Your task to perform on an android device: Open wifi settings Image 0: 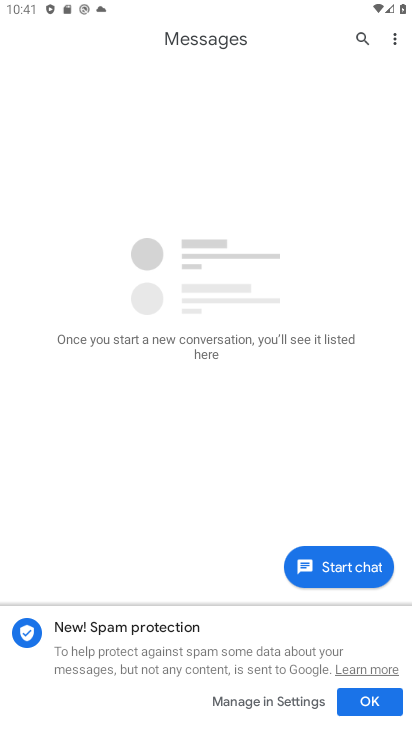
Step 0: press home button
Your task to perform on an android device: Open wifi settings Image 1: 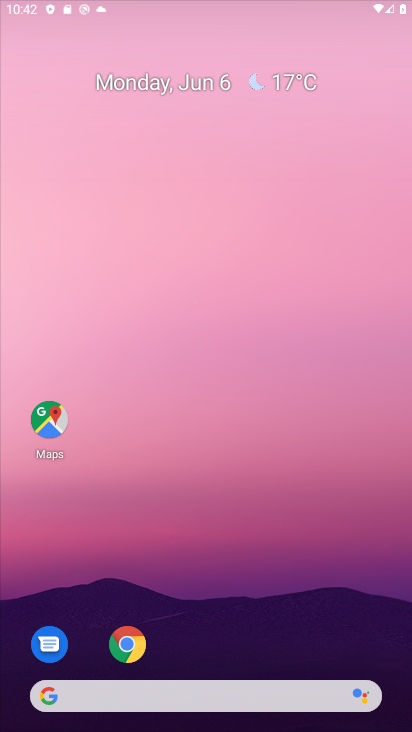
Step 1: drag from (369, 2) to (304, 359)
Your task to perform on an android device: Open wifi settings Image 2: 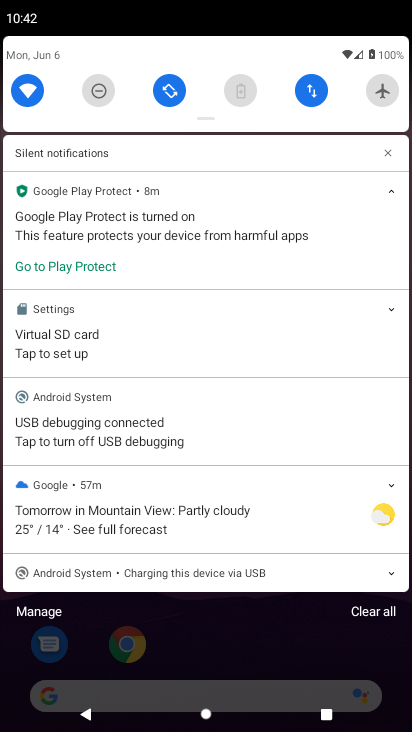
Step 2: click (16, 93)
Your task to perform on an android device: Open wifi settings Image 3: 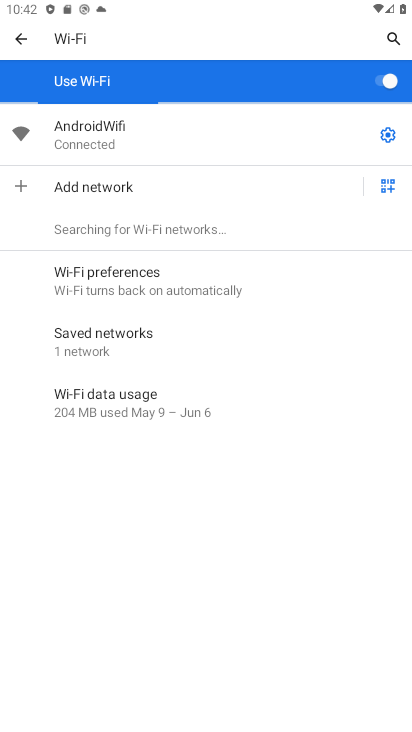
Step 3: task complete